Your task to perform on an android device: see tabs open on other devices in the chrome app Image 0: 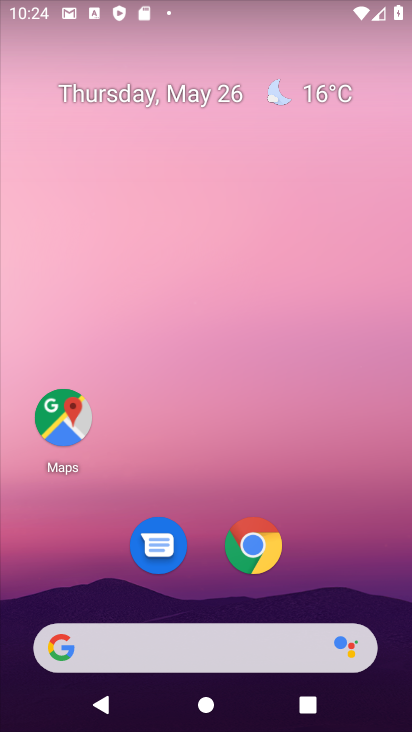
Step 0: press home button
Your task to perform on an android device: see tabs open on other devices in the chrome app Image 1: 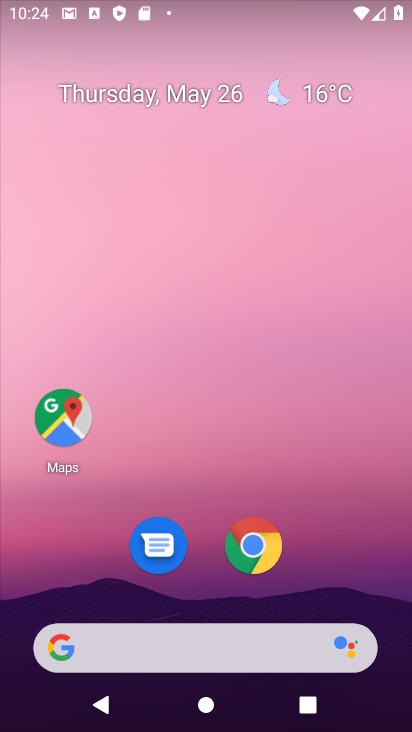
Step 1: click (243, 554)
Your task to perform on an android device: see tabs open on other devices in the chrome app Image 2: 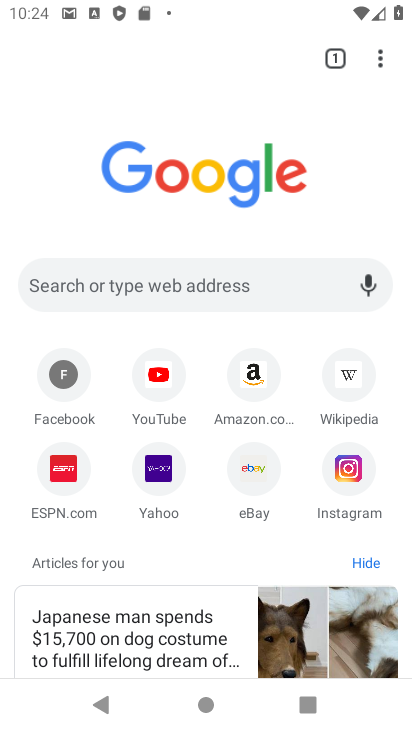
Step 2: task complete